Your task to perform on an android device: turn off notifications settings in the gmail app Image 0: 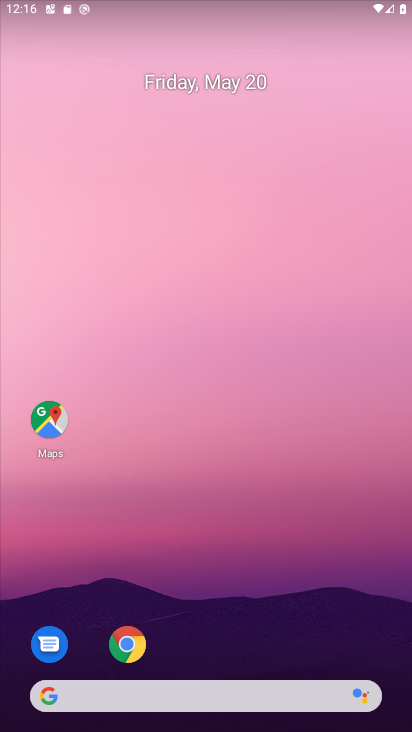
Step 0: click (214, 344)
Your task to perform on an android device: turn off notifications settings in the gmail app Image 1: 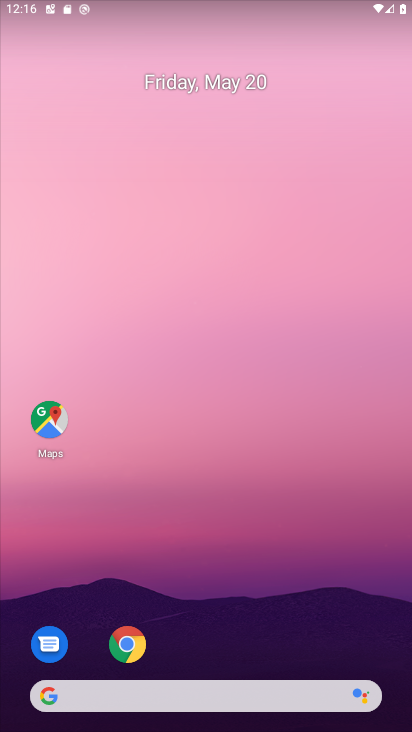
Step 1: drag from (205, 691) to (199, 296)
Your task to perform on an android device: turn off notifications settings in the gmail app Image 2: 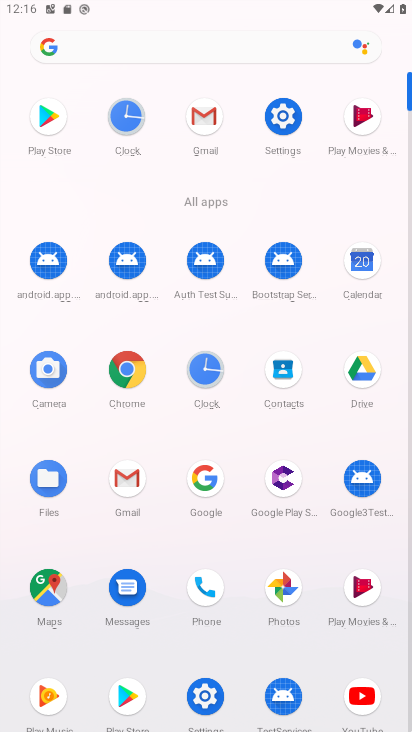
Step 2: click (123, 481)
Your task to perform on an android device: turn off notifications settings in the gmail app Image 3: 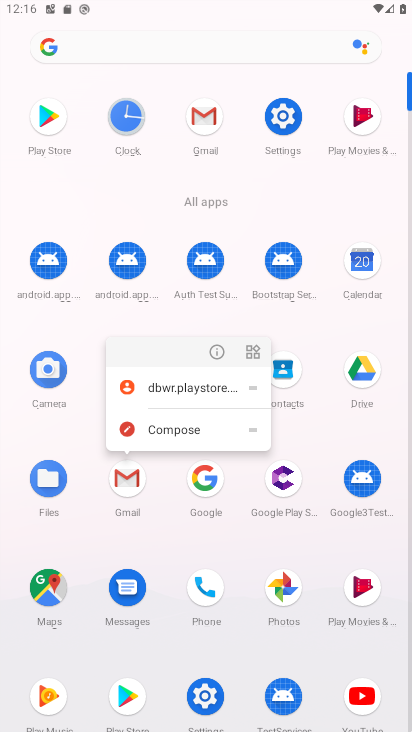
Step 3: click (122, 480)
Your task to perform on an android device: turn off notifications settings in the gmail app Image 4: 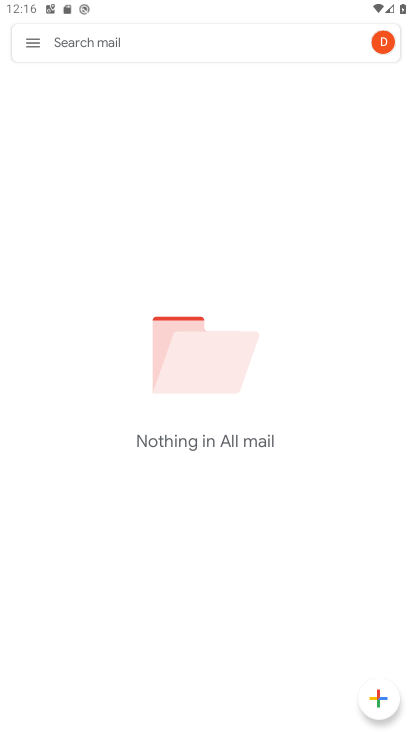
Step 4: click (43, 43)
Your task to perform on an android device: turn off notifications settings in the gmail app Image 5: 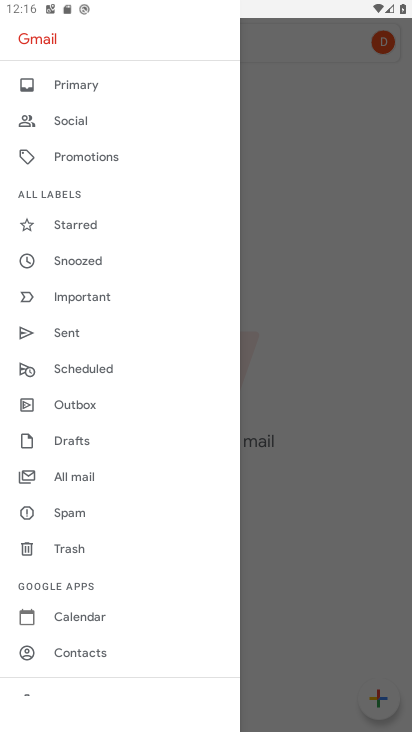
Step 5: drag from (42, 647) to (116, 312)
Your task to perform on an android device: turn off notifications settings in the gmail app Image 6: 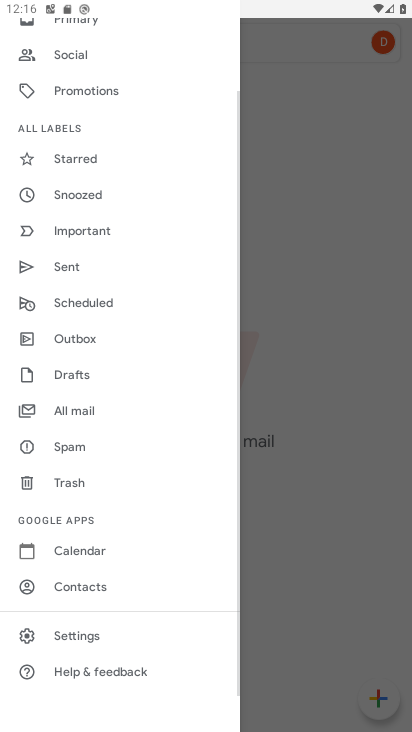
Step 6: click (59, 641)
Your task to perform on an android device: turn off notifications settings in the gmail app Image 7: 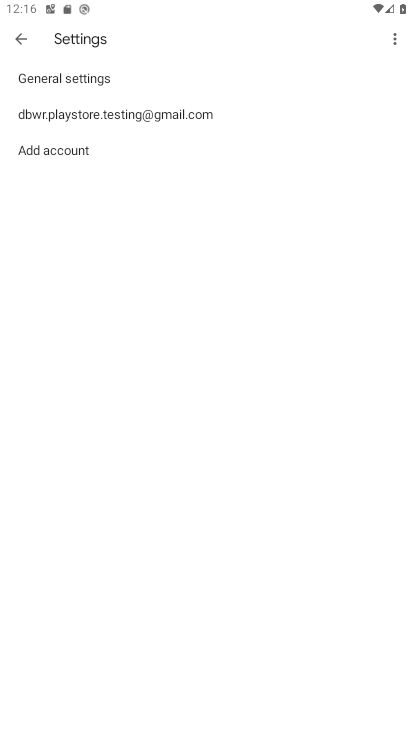
Step 7: click (81, 73)
Your task to perform on an android device: turn off notifications settings in the gmail app Image 8: 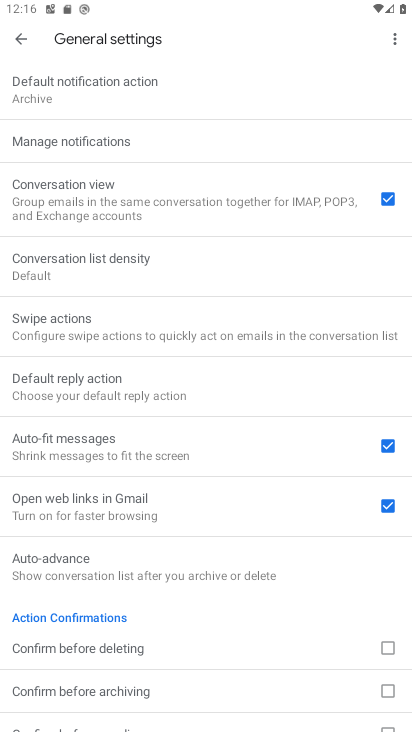
Step 8: click (81, 143)
Your task to perform on an android device: turn off notifications settings in the gmail app Image 9: 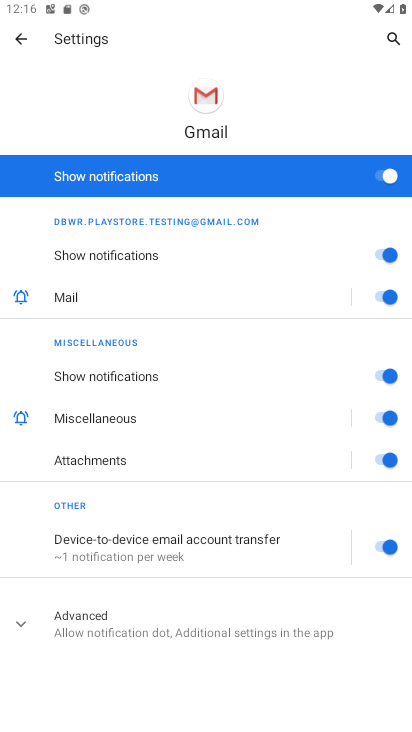
Step 9: click (382, 174)
Your task to perform on an android device: turn off notifications settings in the gmail app Image 10: 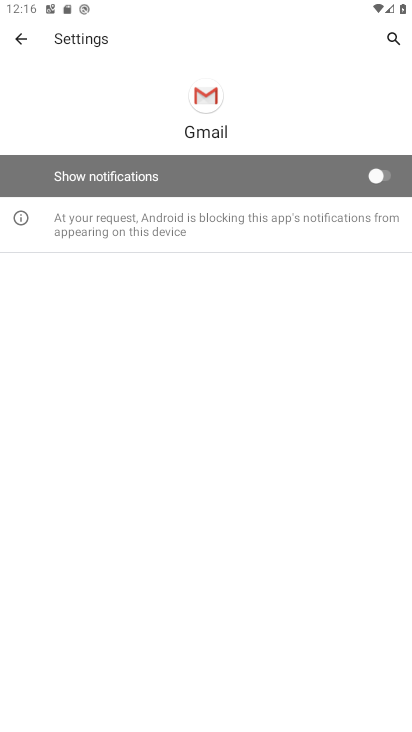
Step 10: task complete